Your task to perform on an android device: change alarm snooze length Image 0: 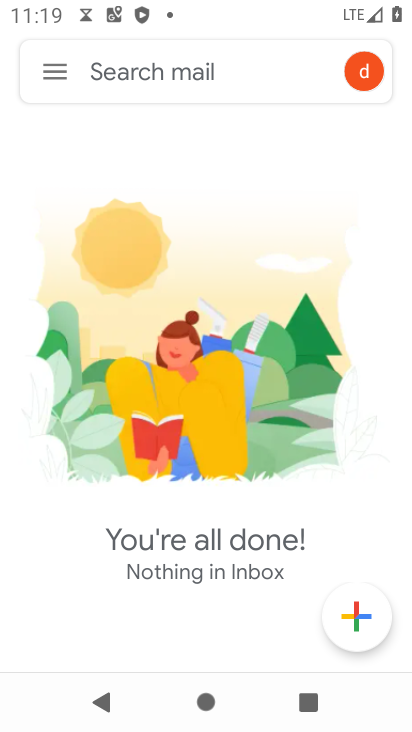
Step 0: press home button
Your task to perform on an android device: change alarm snooze length Image 1: 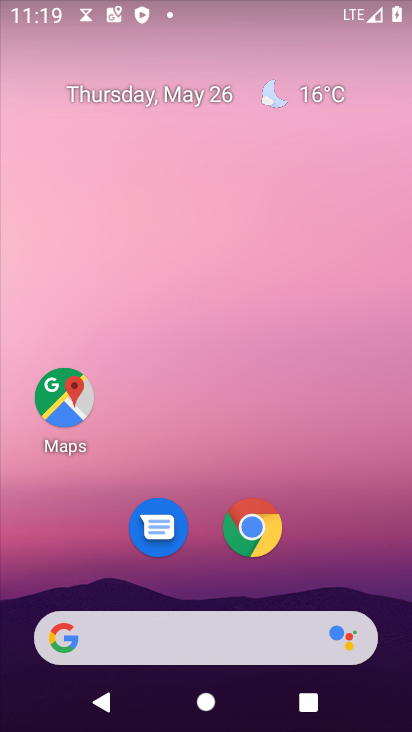
Step 1: drag from (352, 578) to (261, 123)
Your task to perform on an android device: change alarm snooze length Image 2: 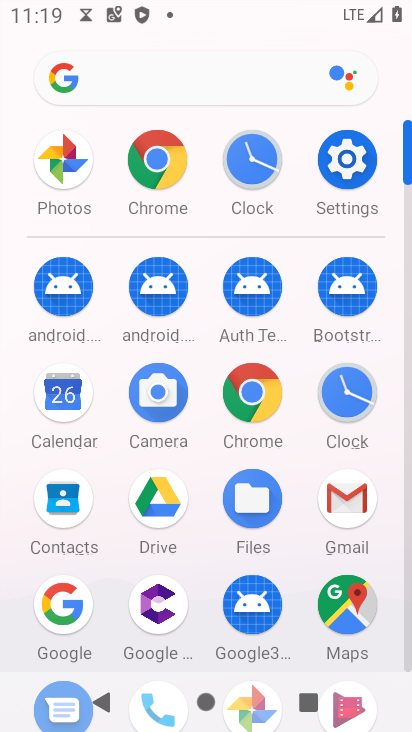
Step 2: click (351, 390)
Your task to perform on an android device: change alarm snooze length Image 3: 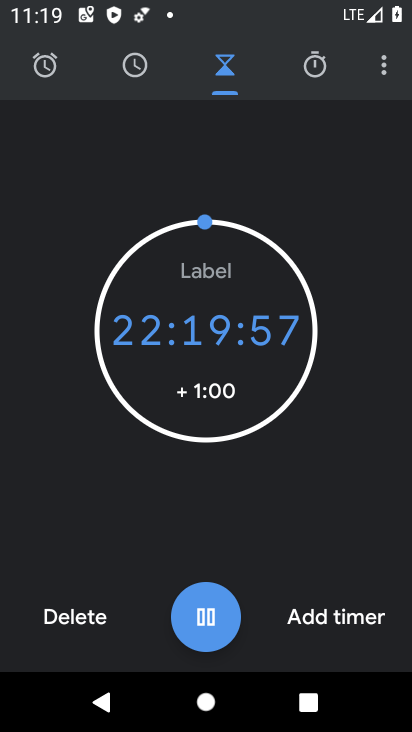
Step 3: click (373, 73)
Your task to perform on an android device: change alarm snooze length Image 4: 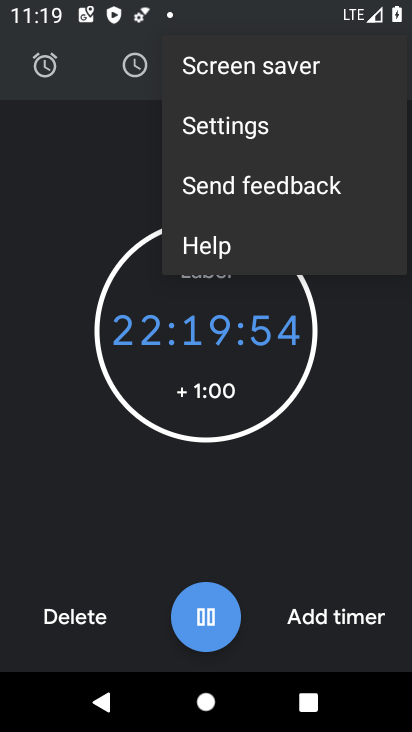
Step 4: click (222, 131)
Your task to perform on an android device: change alarm snooze length Image 5: 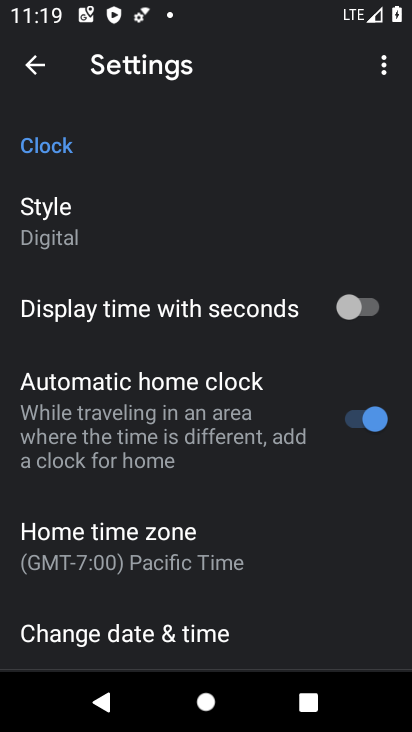
Step 5: drag from (290, 476) to (262, 250)
Your task to perform on an android device: change alarm snooze length Image 6: 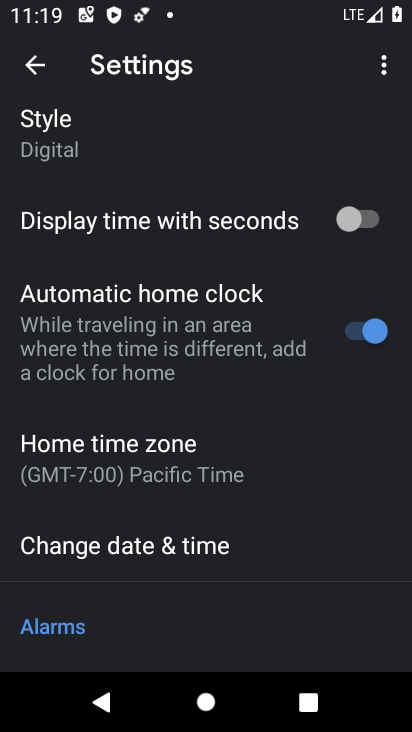
Step 6: drag from (260, 565) to (259, 254)
Your task to perform on an android device: change alarm snooze length Image 7: 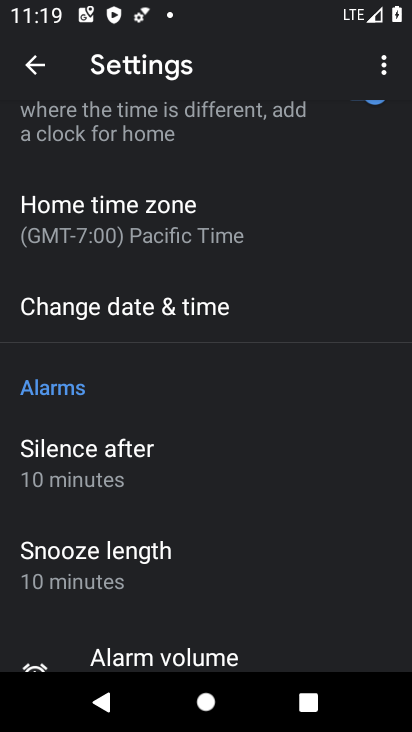
Step 7: drag from (151, 468) to (103, 129)
Your task to perform on an android device: change alarm snooze length Image 8: 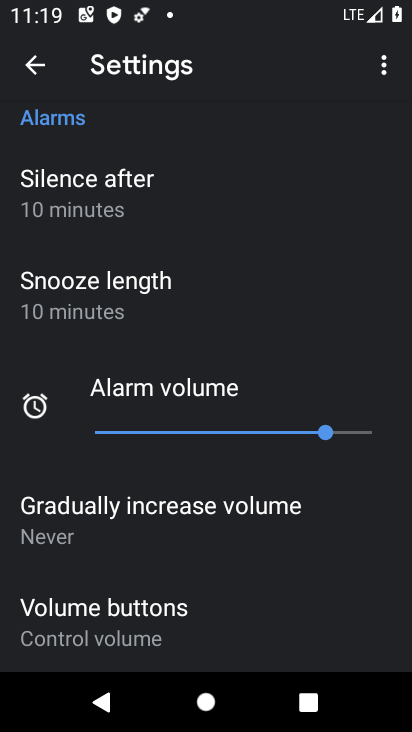
Step 8: drag from (253, 551) to (246, 444)
Your task to perform on an android device: change alarm snooze length Image 9: 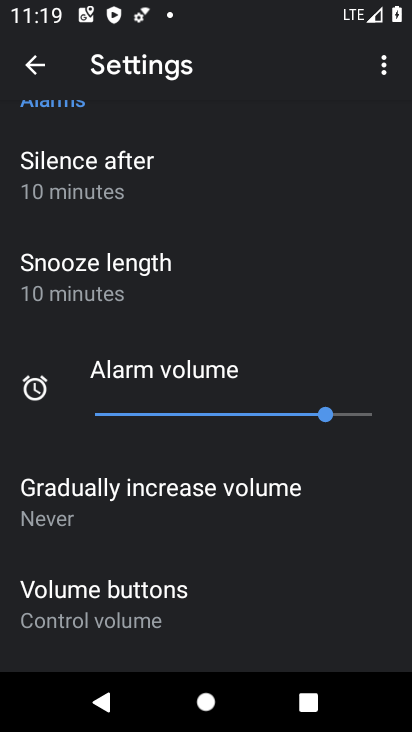
Step 9: click (162, 272)
Your task to perform on an android device: change alarm snooze length Image 10: 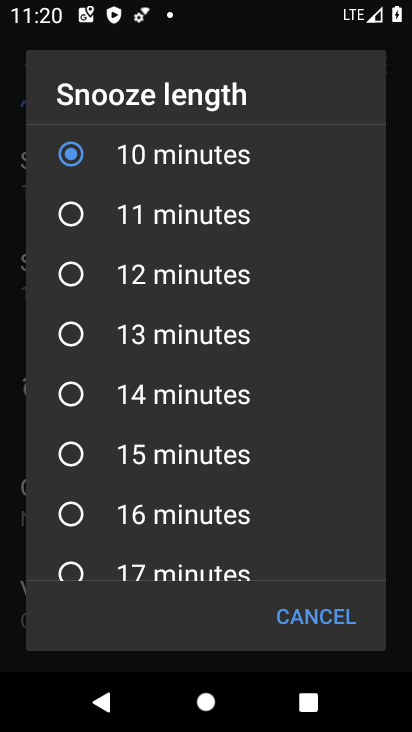
Step 10: click (176, 445)
Your task to perform on an android device: change alarm snooze length Image 11: 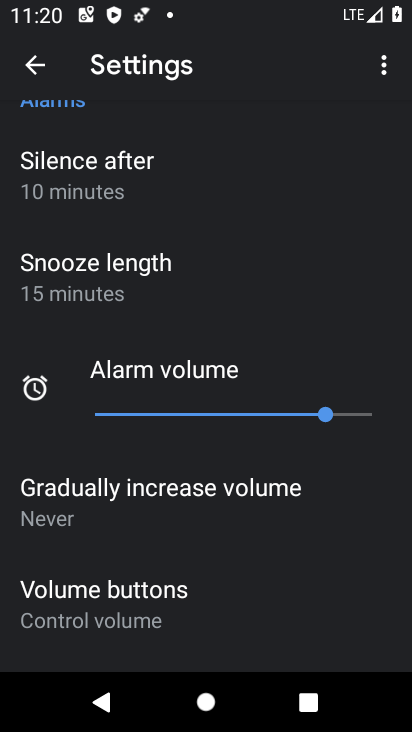
Step 11: task complete